Your task to perform on an android device: What is the news today? Image 0: 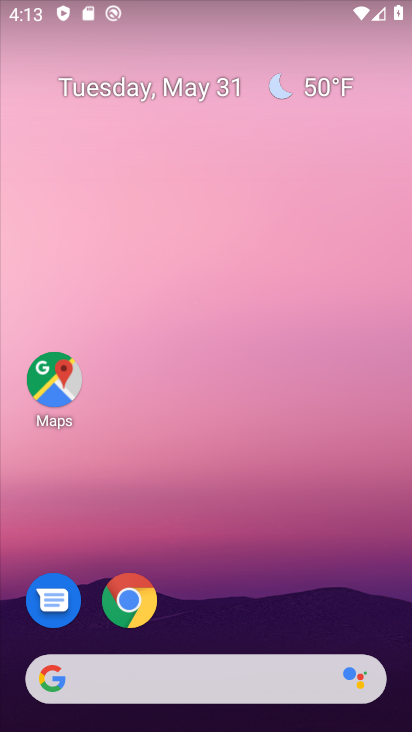
Step 0: drag from (239, 577) to (228, 93)
Your task to perform on an android device: What is the news today? Image 1: 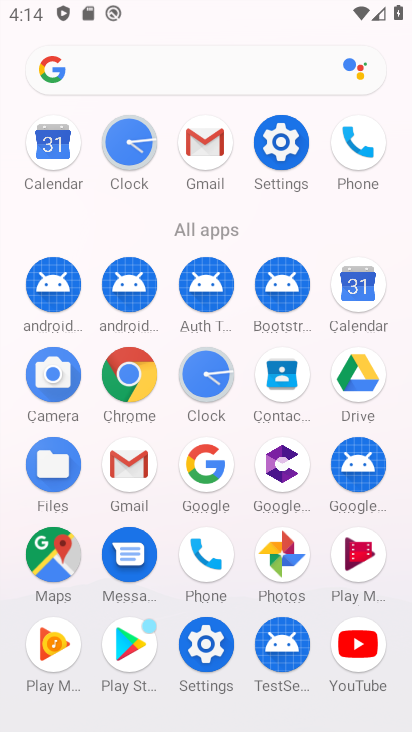
Step 1: click (202, 465)
Your task to perform on an android device: What is the news today? Image 2: 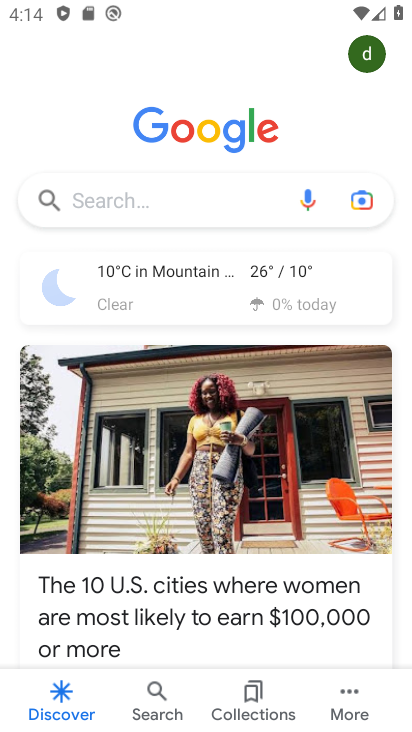
Step 2: click (178, 209)
Your task to perform on an android device: What is the news today? Image 3: 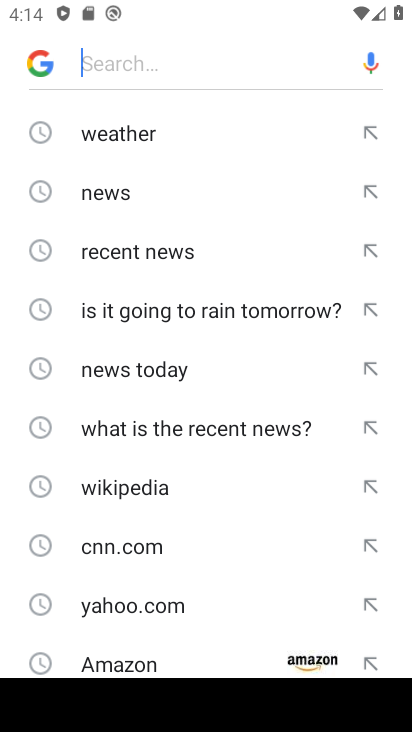
Step 3: type "news today"
Your task to perform on an android device: What is the news today? Image 4: 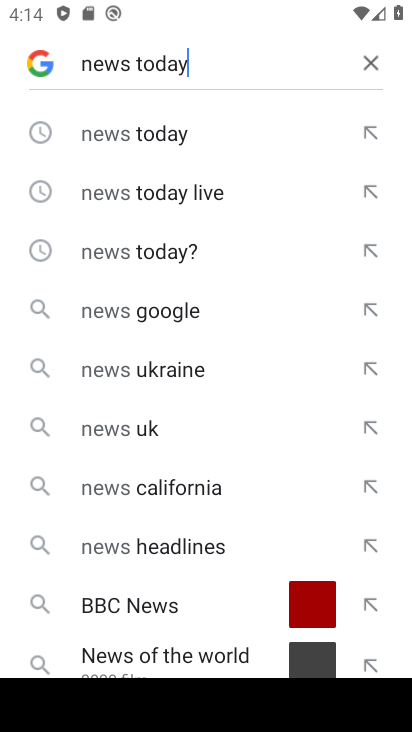
Step 4: type ""
Your task to perform on an android device: What is the news today? Image 5: 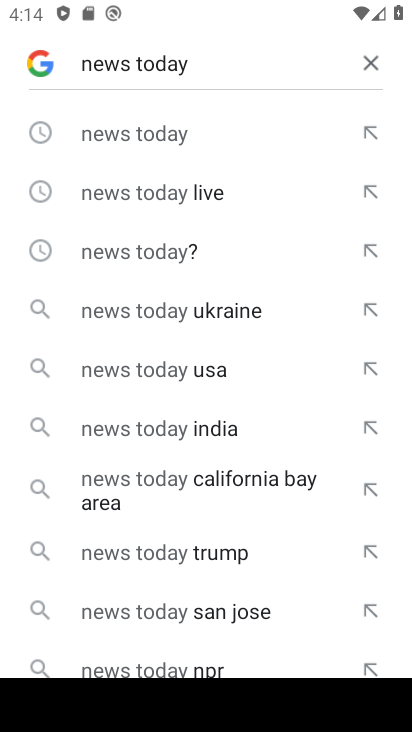
Step 5: click (134, 138)
Your task to perform on an android device: What is the news today? Image 6: 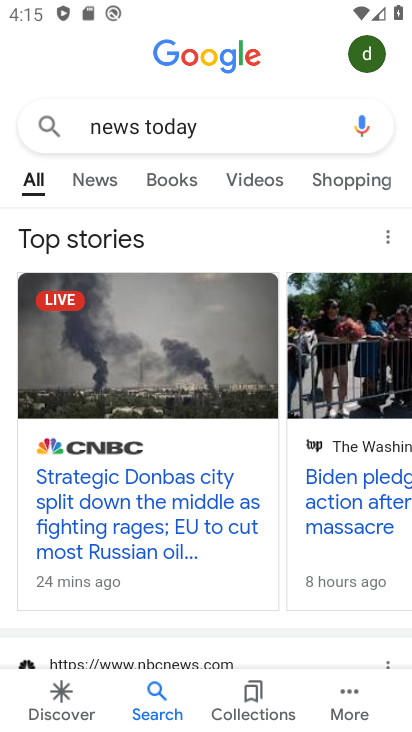
Step 6: task complete